Your task to perform on an android device: open a bookmark in the chrome app Image 0: 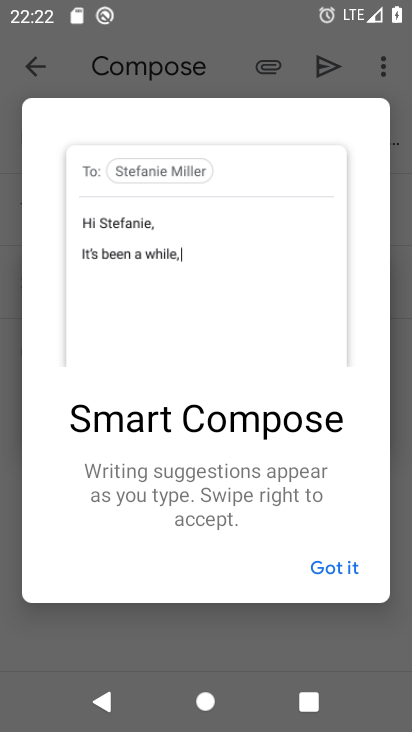
Step 0: press home button
Your task to perform on an android device: open a bookmark in the chrome app Image 1: 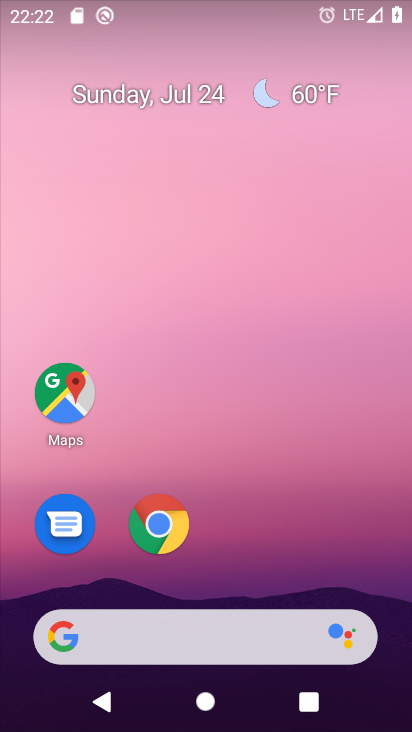
Step 1: click (163, 522)
Your task to perform on an android device: open a bookmark in the chrome app Image 2: 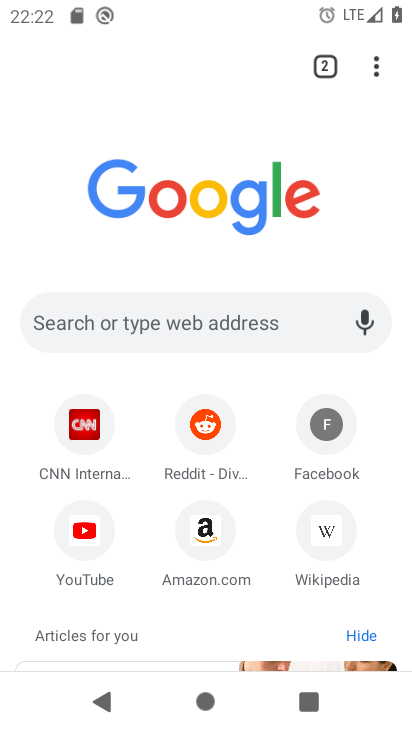
Step 2: click (377, 67)
Your task to perform on an android device: open a bookmark in the chrome app Image 3: 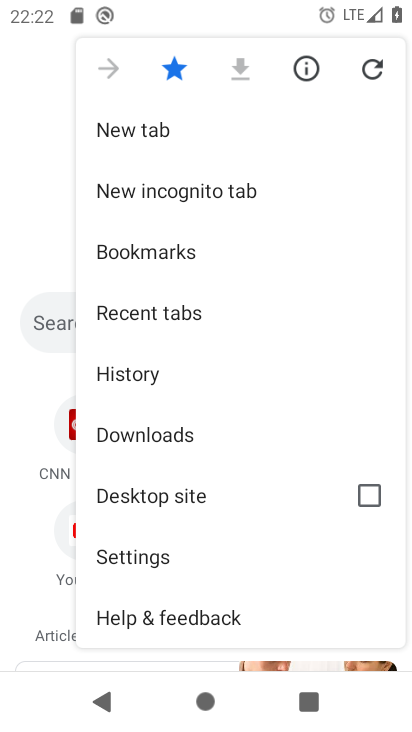
Step 3: click (183, 249)
Your task to perform on an android device: open a bookmark in the chrome app Image 4: 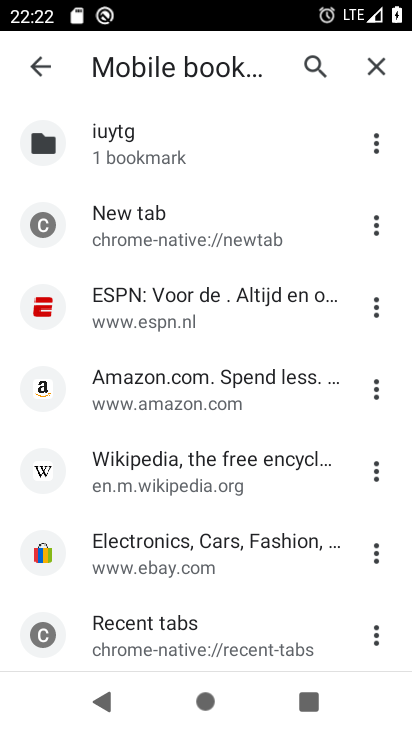
Step 4: click (183, 299)
Your task to perform on an android device: open a bookmark in the chrome app Image 5: 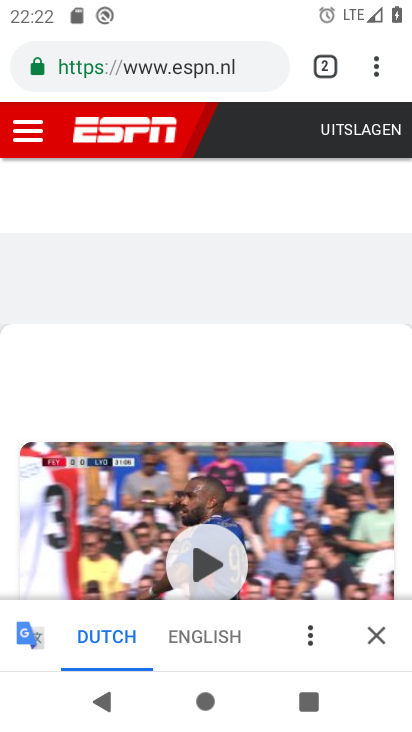
Step 5: click (204, 633)
Your task to perform on an android device: open a bookmark in the chrome app Image 6: 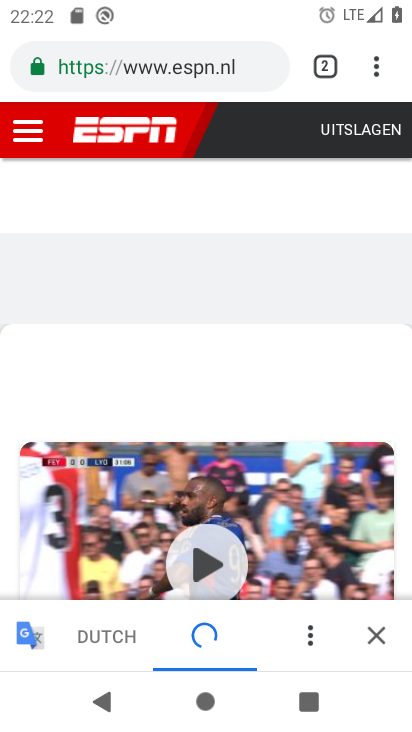
Step 6: task complete